Your task to perform on an android device: Add asus rog to the cart on newegg, then select checkout. Image 0: 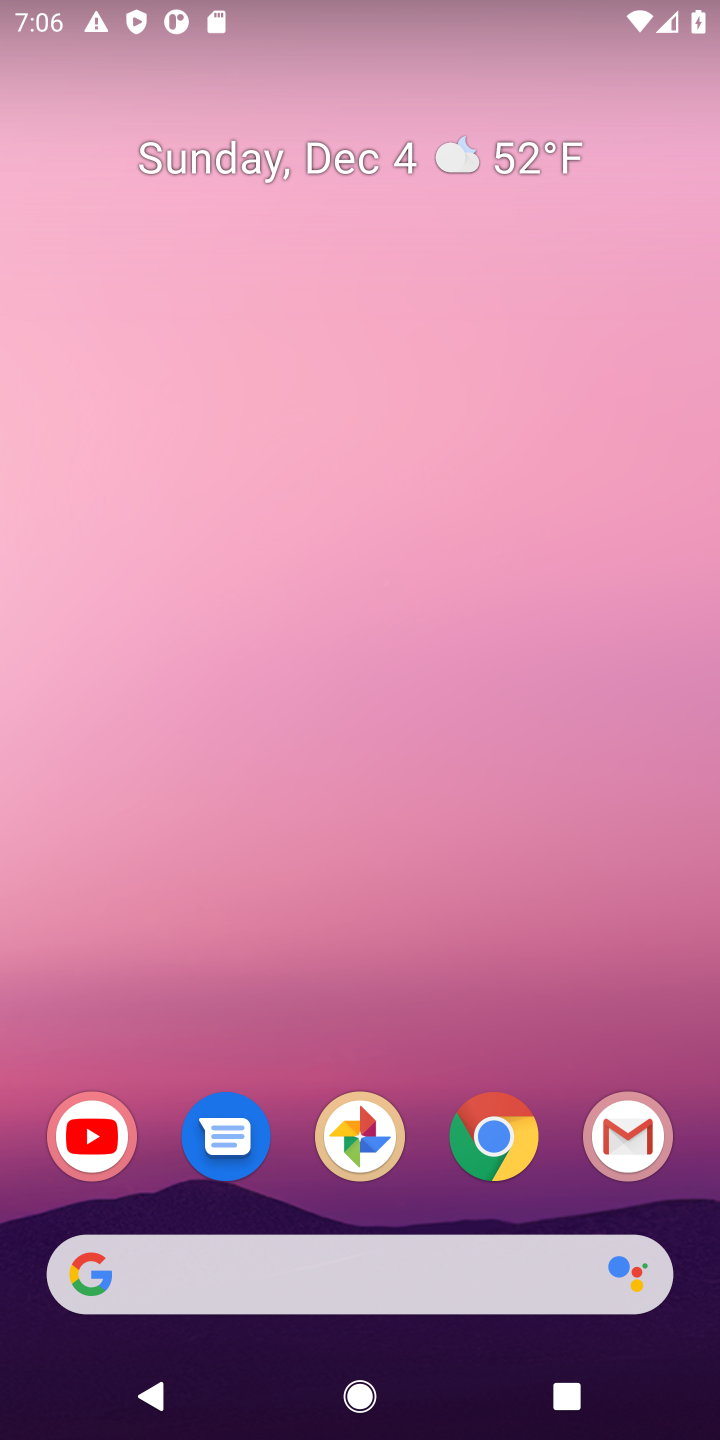
Step 0: click (503, 1127)
Your task to perform on an android device: Add asus rog to the cart on newegg, then select checkout. Image 1: 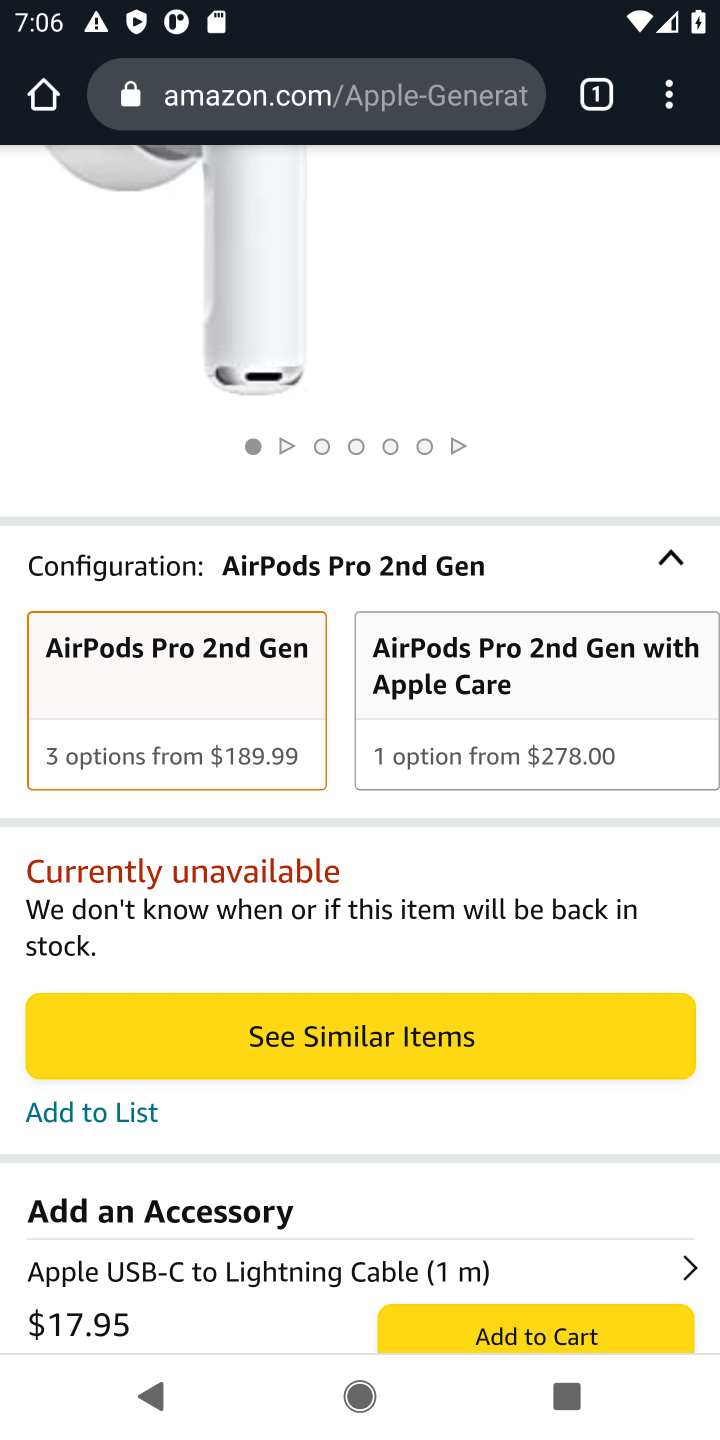
Step 1: click (282, 103)
Your task to perform on an android device: Add asus rog to the cart on newegg, then select checkout. Image 2: 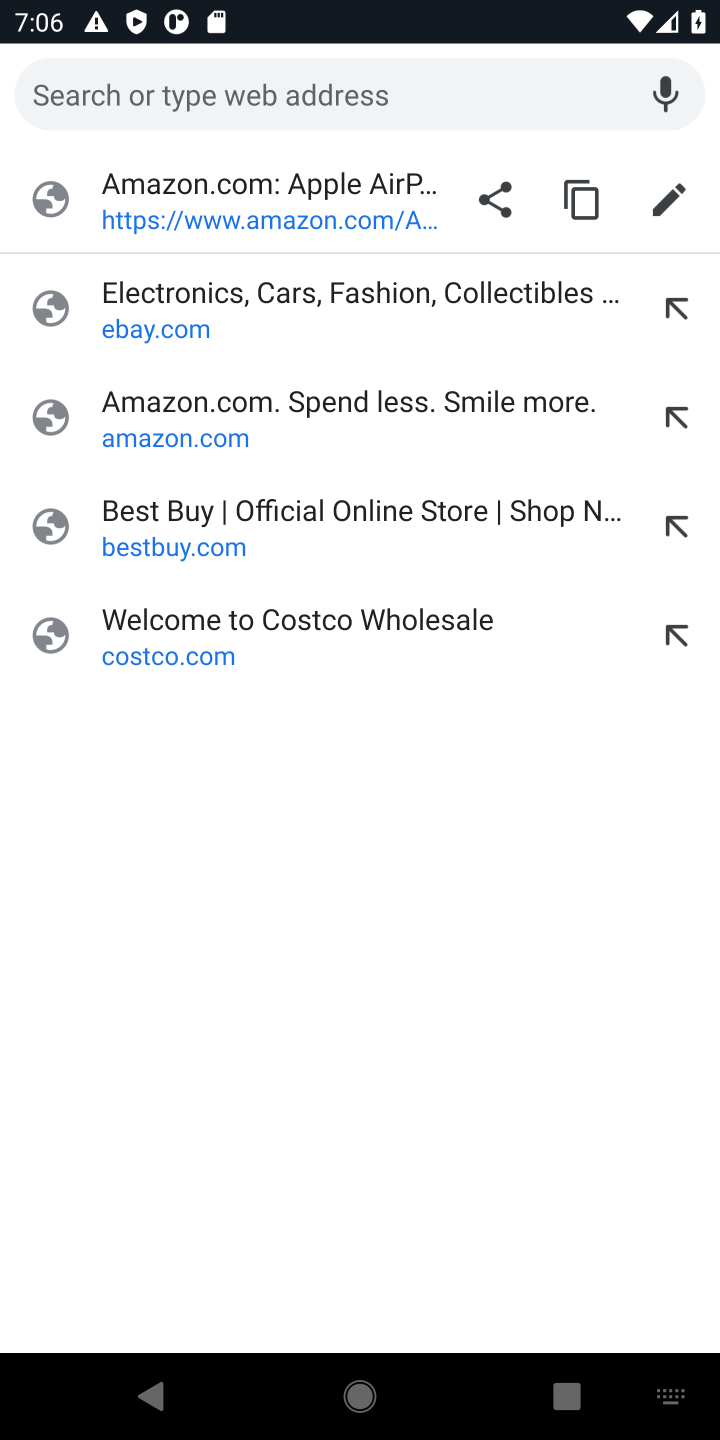
Step 2: type "newegg.com"
Your task to perform on an android device: Add asus rog to the cart on newegg, then select checkout. Image 3: 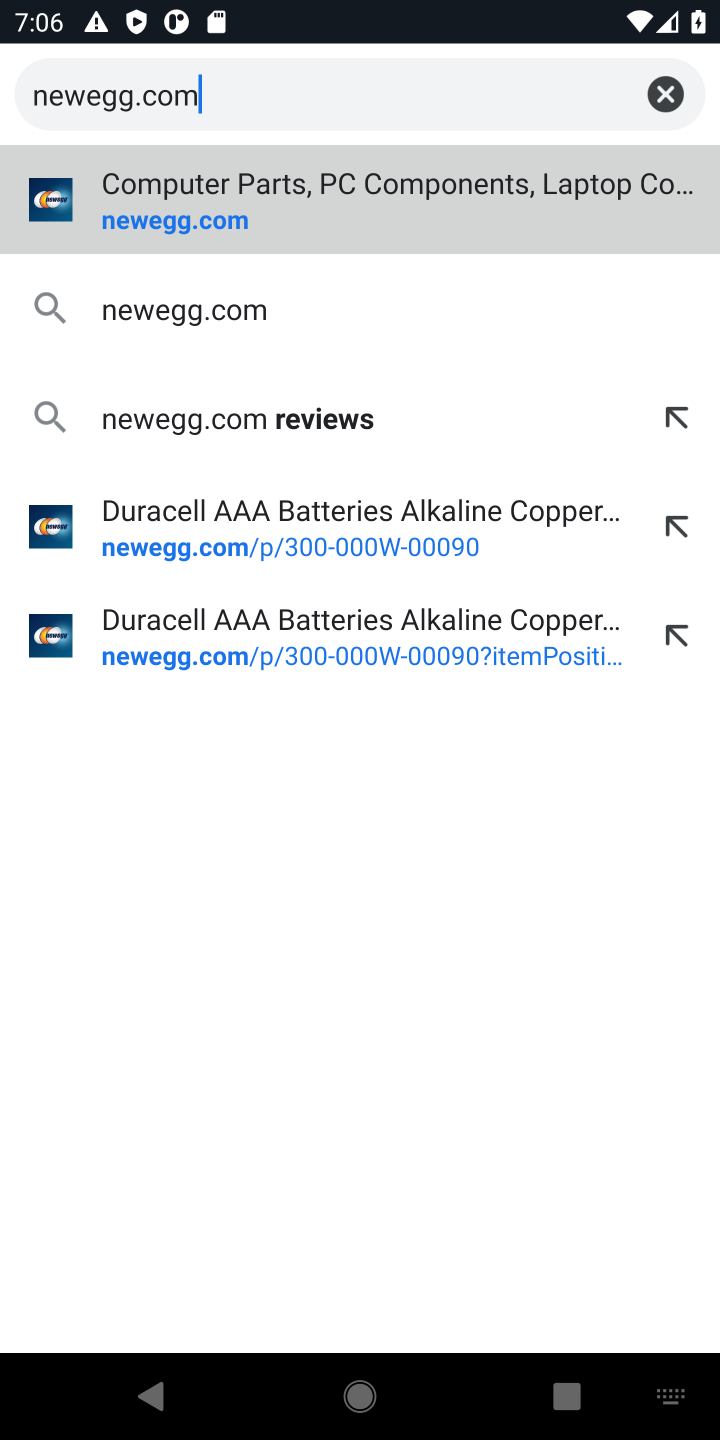
Step 3: click (127, 215)
Your task to perform on an android device: Add asus rog to the cart on newegg, then select checkout. Image 4: 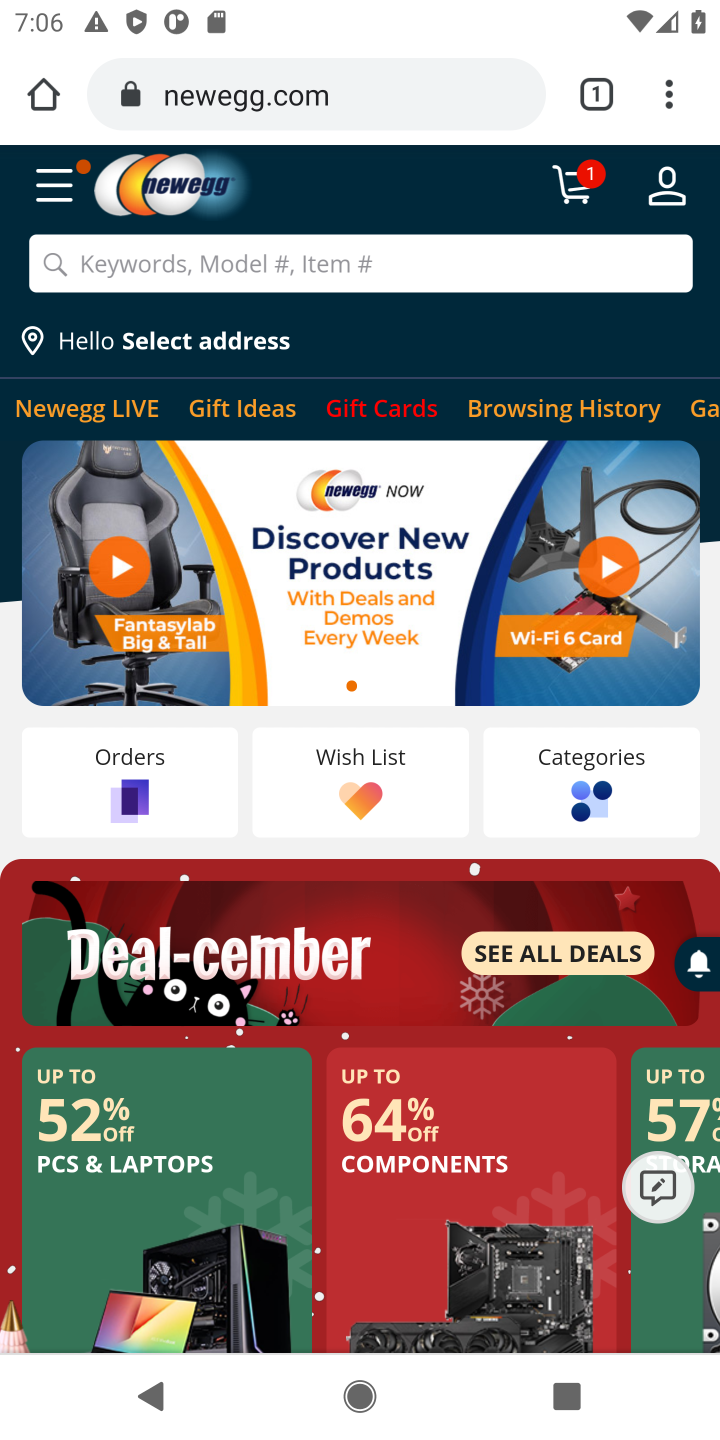
Step 4: click (125, 265)
Your task to perform on an android device: Add asus rog to the cart on newegg, then select checkout. Image 5: 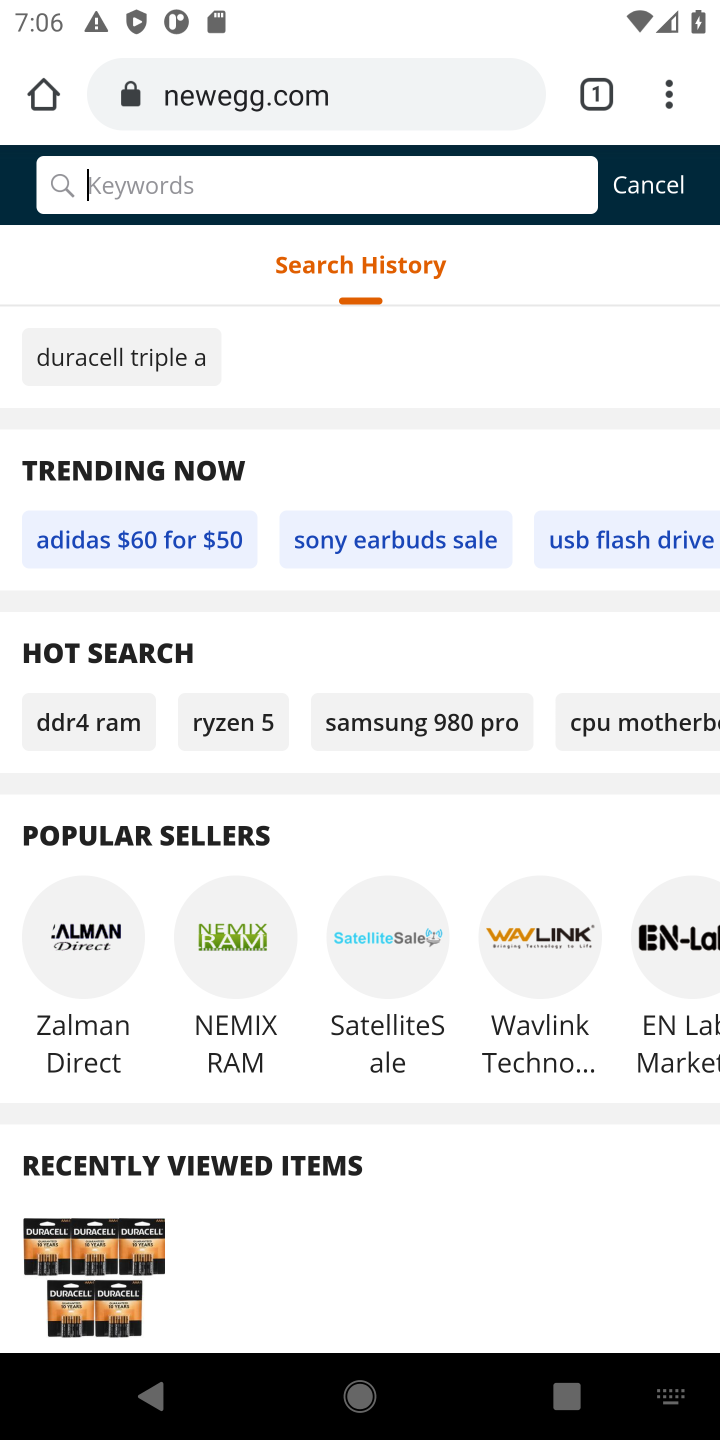
Step 5: type "asus rog"
Your task to perform on an android device: Add asus rog to the cart on newegg, then select checkout. Image 6: 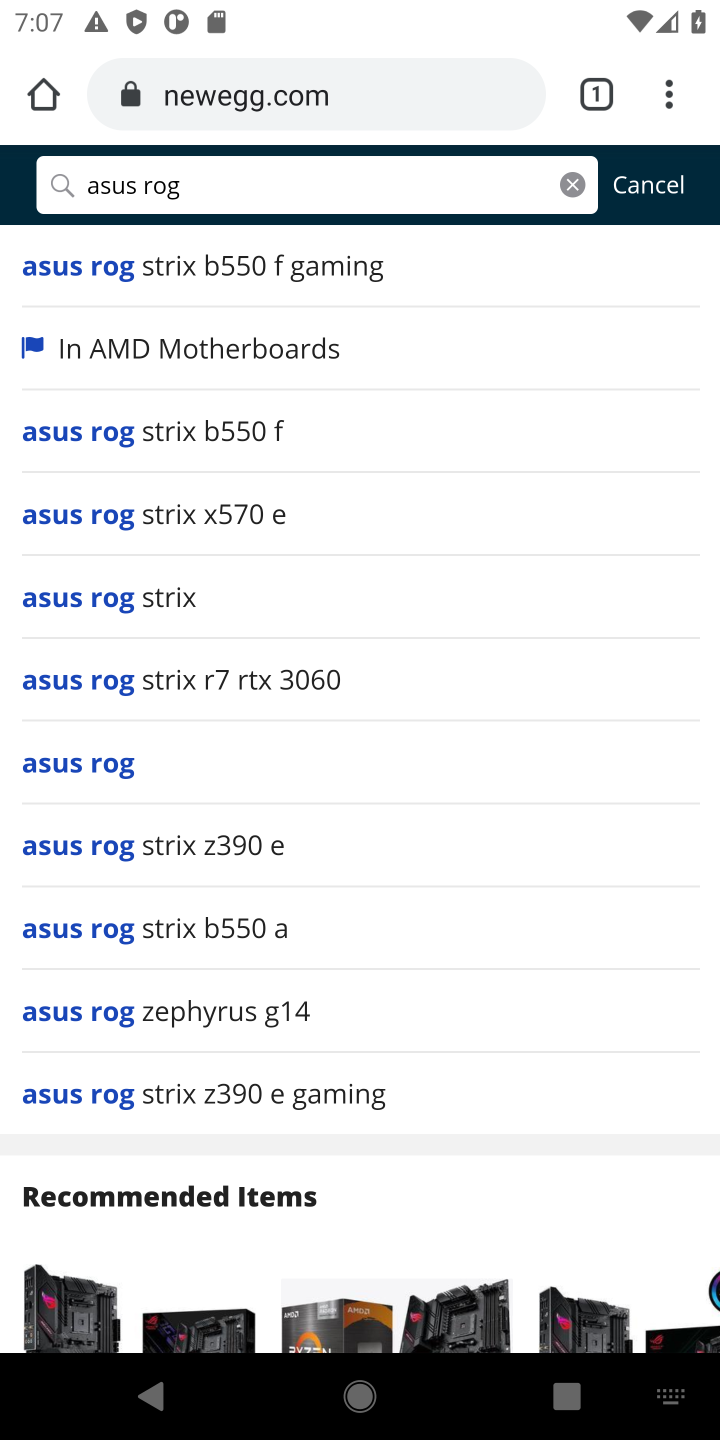
Step 6: click (103, 774)
Your task to perform on an android device: Add asus rog to the cart on newegg, then select checkout. Image 7: 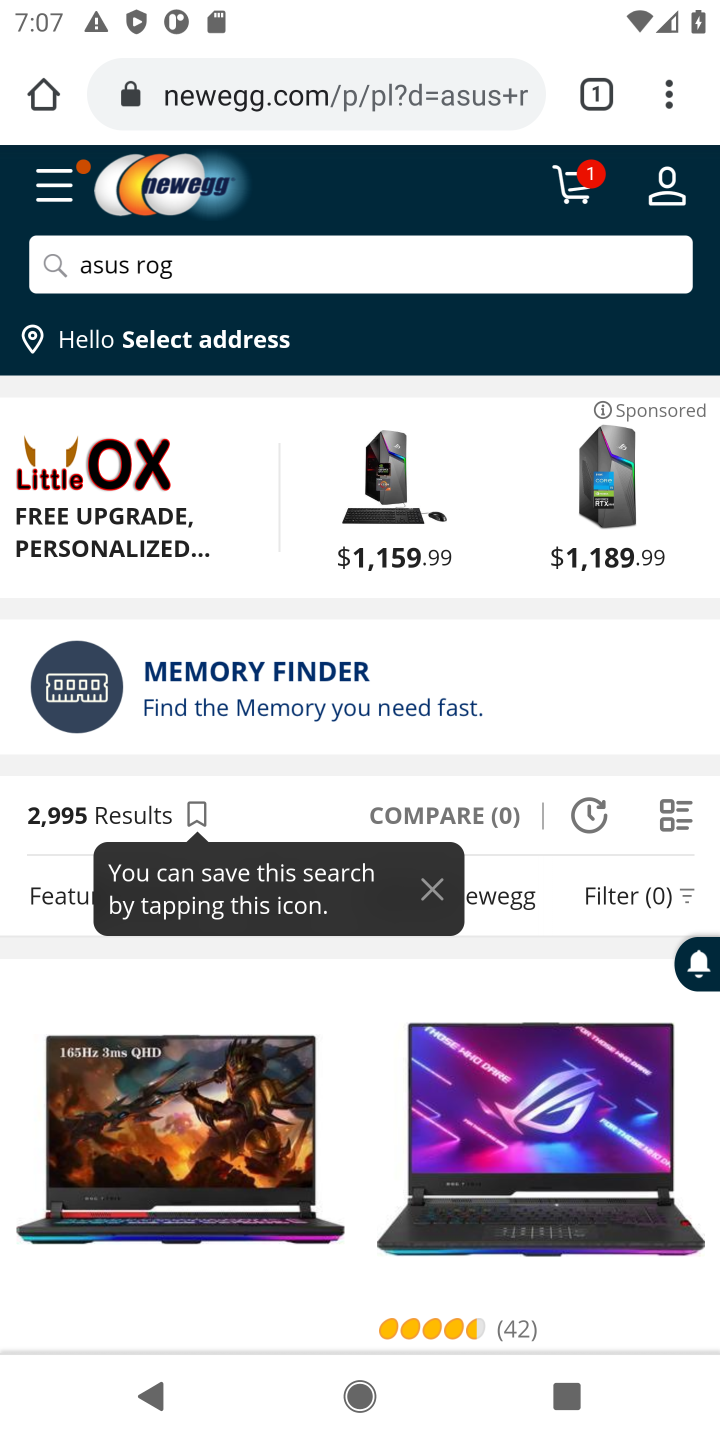
Step 7: drag from (297, 900) to (303, 712)
Your task to perform on an android device: Add asus rog to the cart on newegg, then select checkout. Image 8: 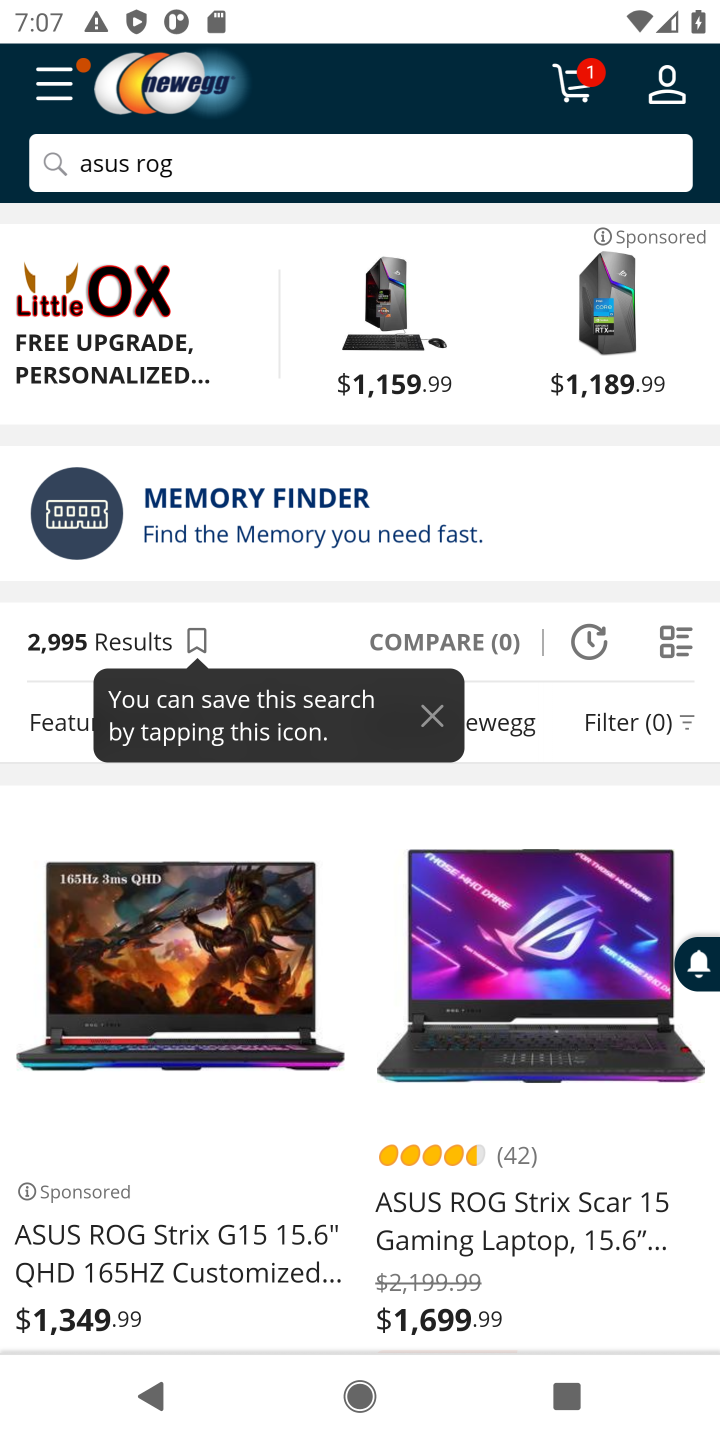
Step 8: click (154, 1040)
Your task to perform on an android device: Add asus rog to the cart on newegg, then select checkout. Image 9: 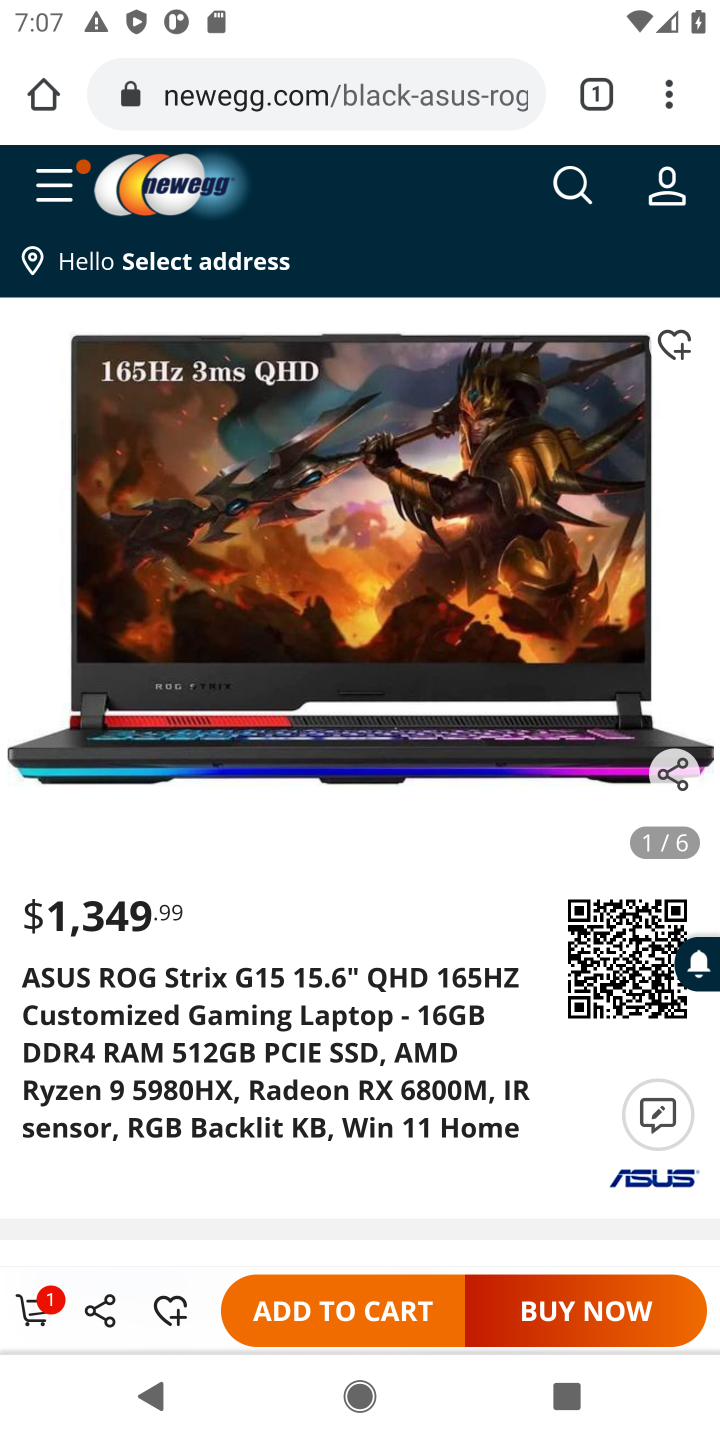
Step 9: click (297, 1305)
Your task to perform on an android device: Add asus rog to the cart on newegg, then select checkout. Image 10: 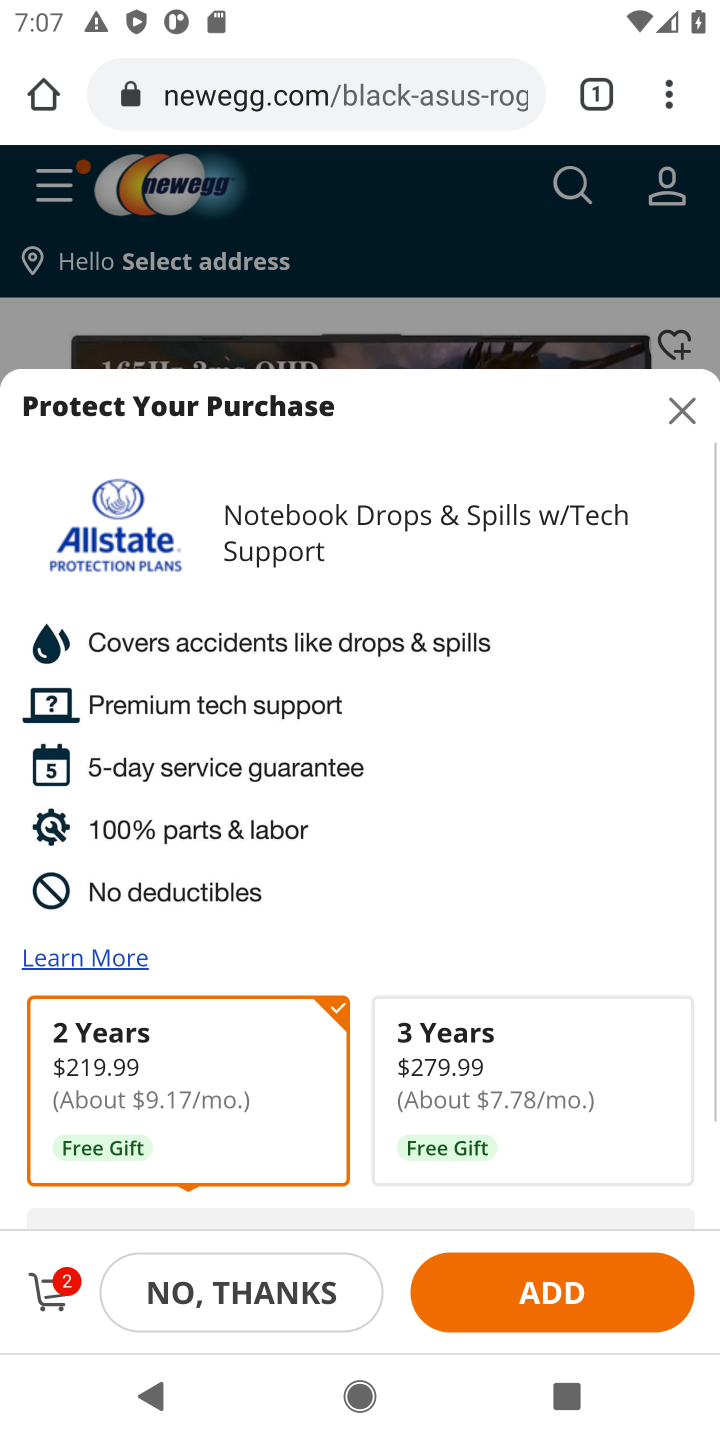
Step 10: click (55, 1305)
Your task to perform on an android device: Add asus rog to the cart on newegg, then select checkout. Image 11: 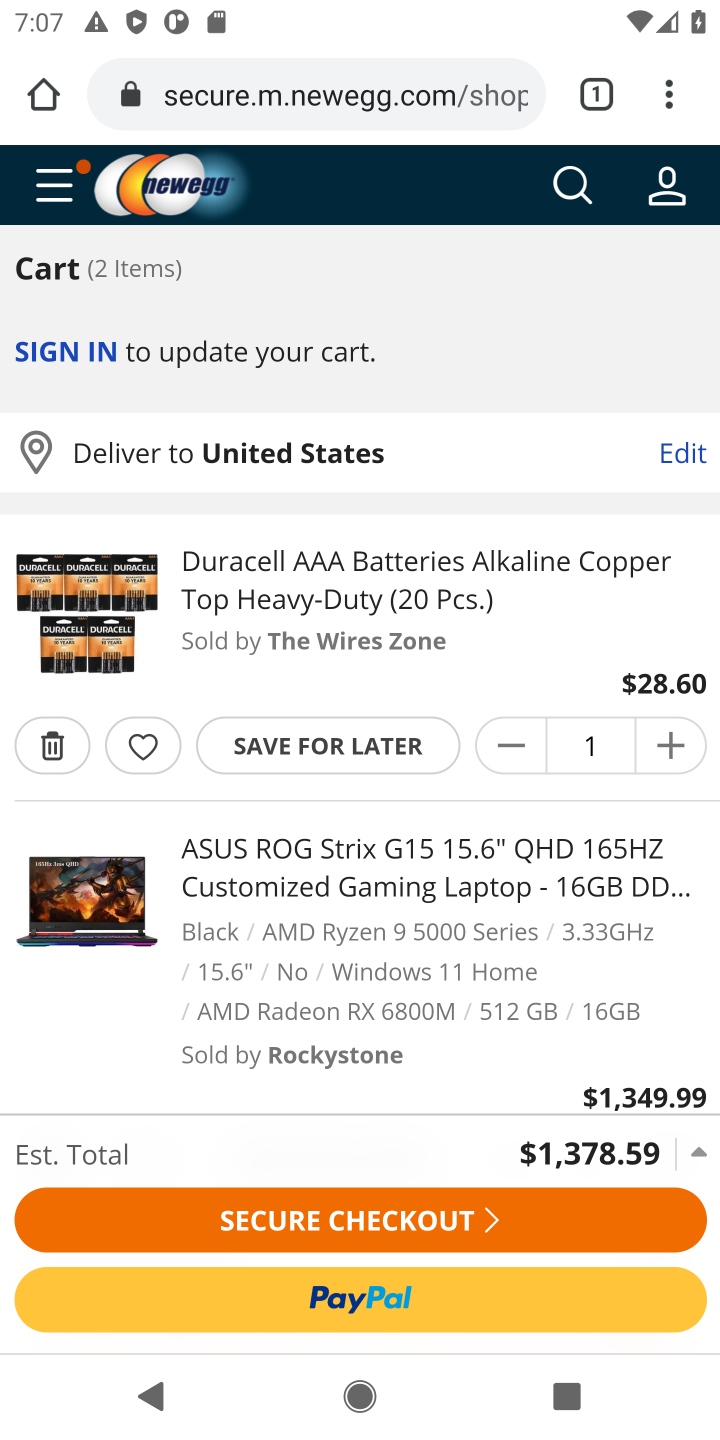
Step 11: click (324, 1301)
Your task to perform on an android device: Add asus rog to the cart on newegg, then select checkout. Image 12: 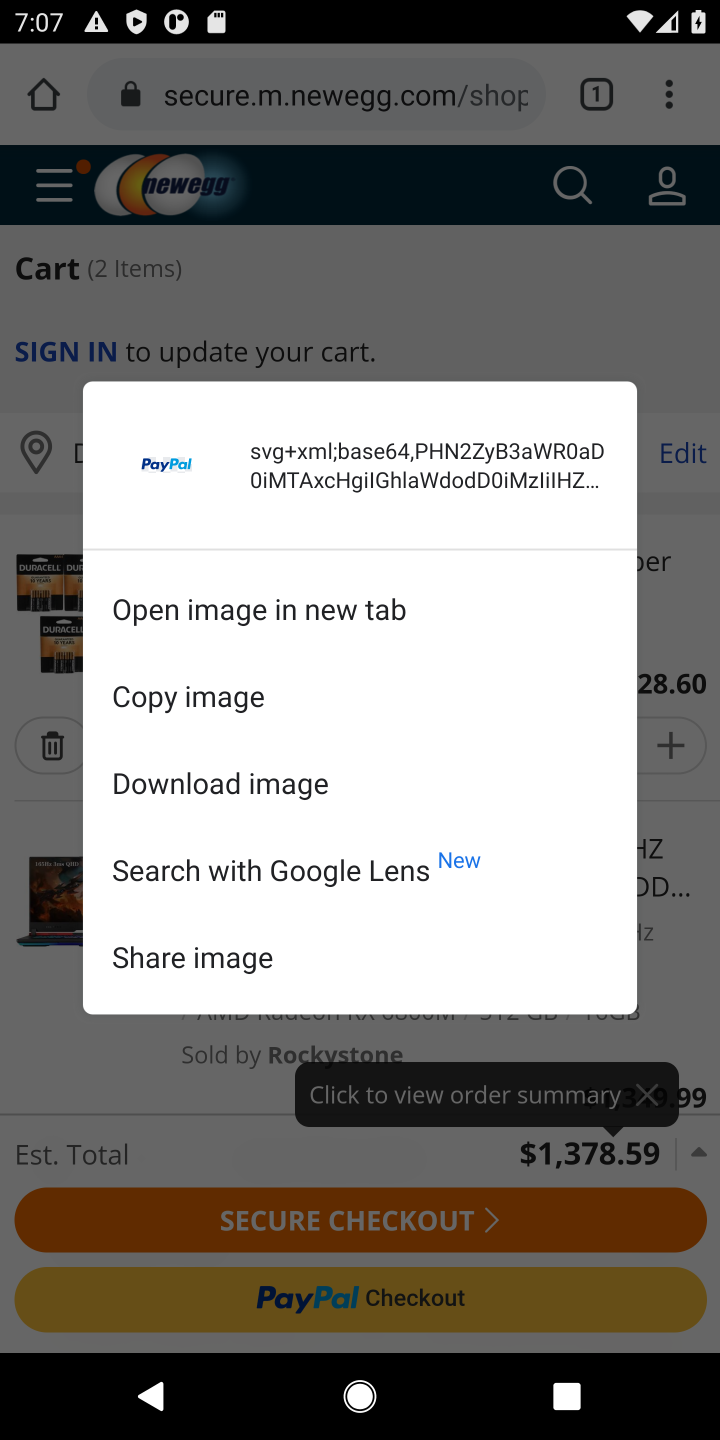
Step 12: click (255, 1241)
Your task to perform on an android device: Add asus rog to the cart on newegg, then select checkout. Image 13: 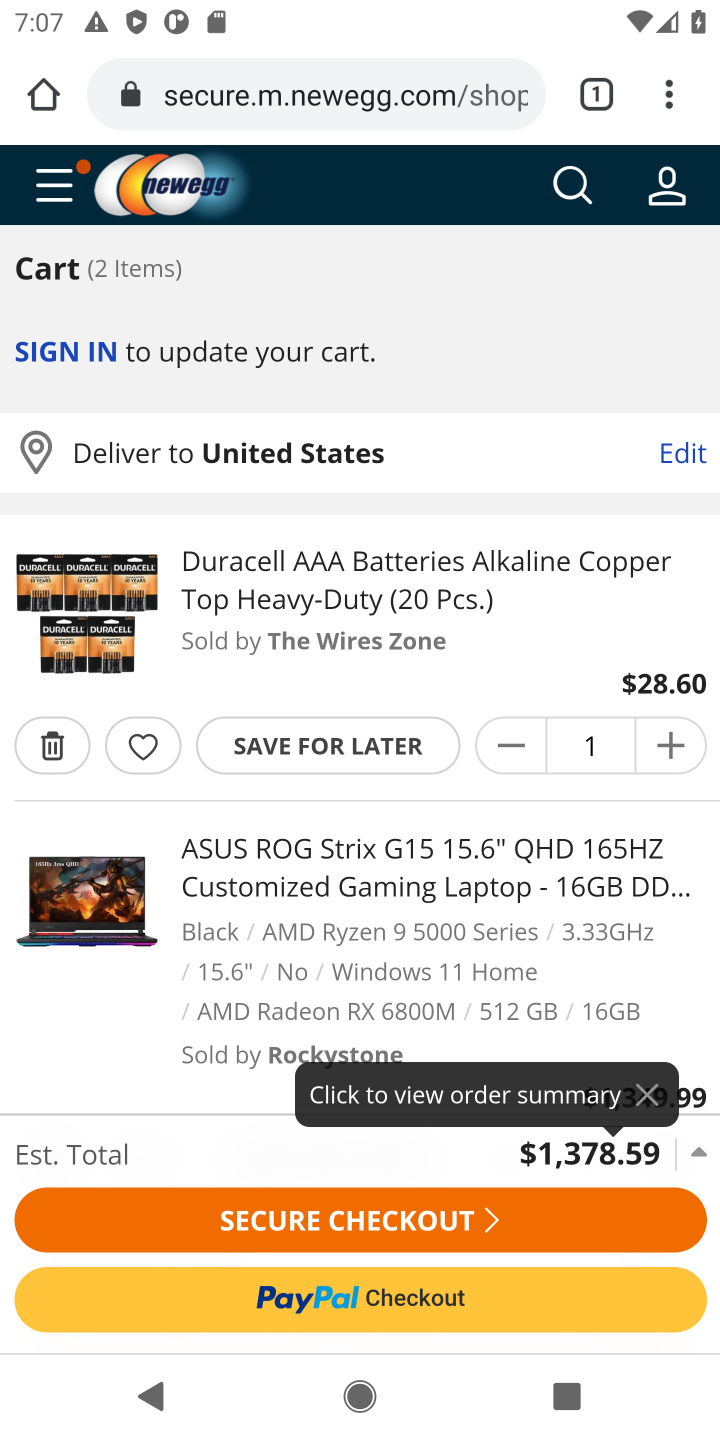
Step 13: click (273, 1232)
Your task to perform on an android device: Add asus rog to the cart on newegg, then select checkout. Image 14: 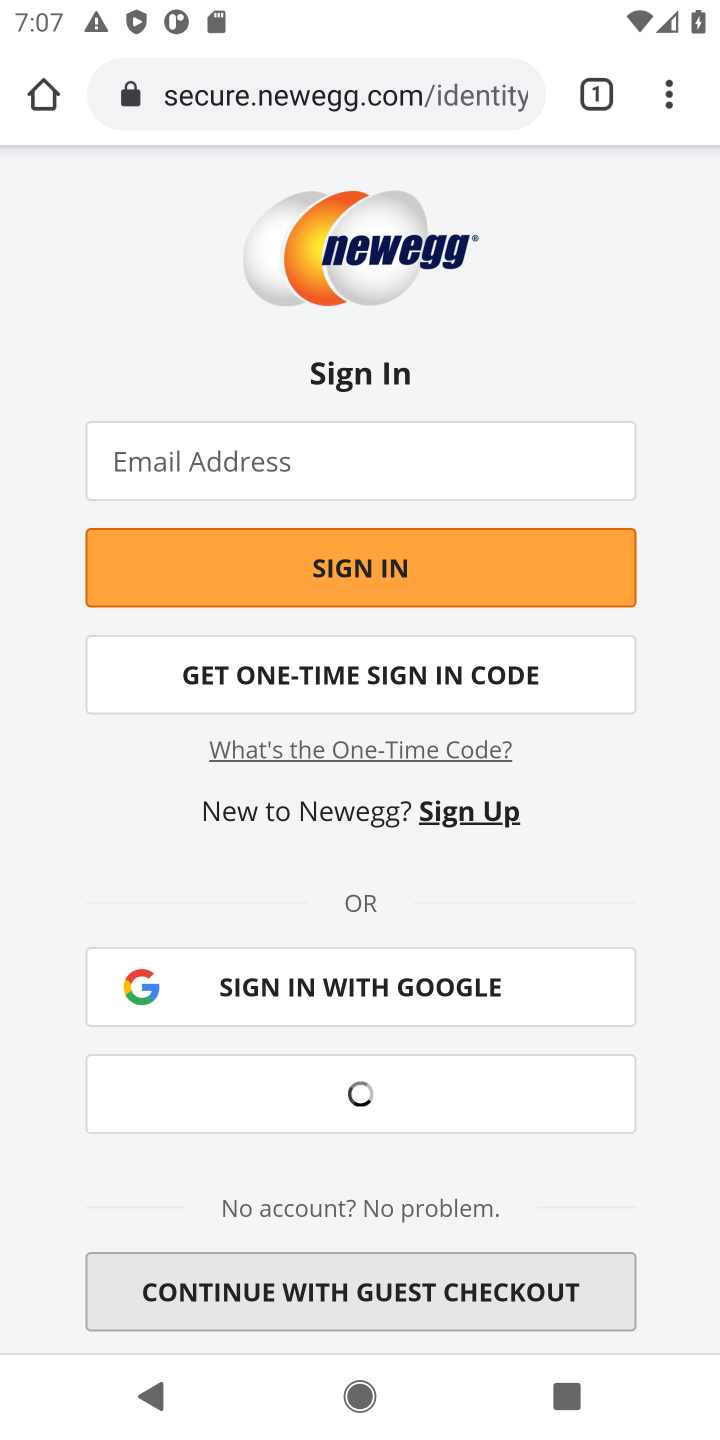
Step 14: task complete